Your task to perform on an android device: Open calendar and show me the first week of next month Image 0: 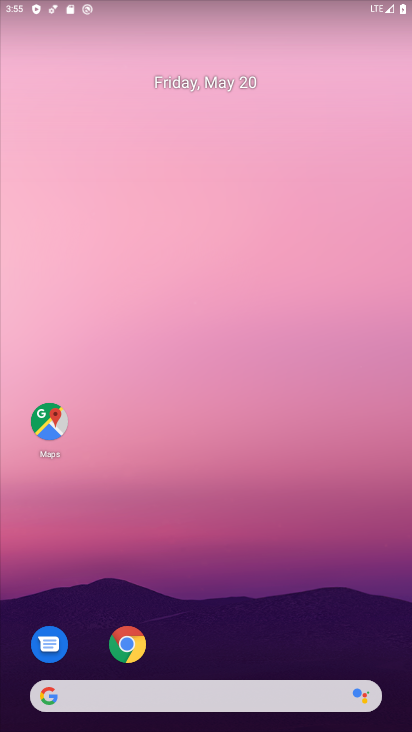
Step 0: drag from (296, 710) to (278, 176)
Your task to perform on an android device: Open calendar and show me the first week of next month Image 1: 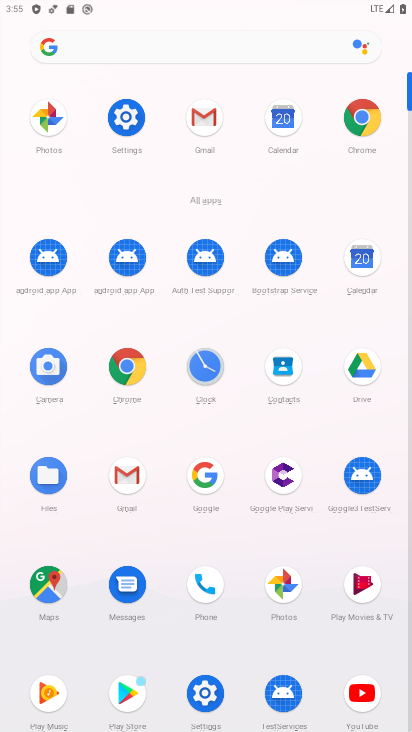
Step 1: click (360, 281)
Your task to perform on an android device: Open calendar and show me the first week of next month Image 2: 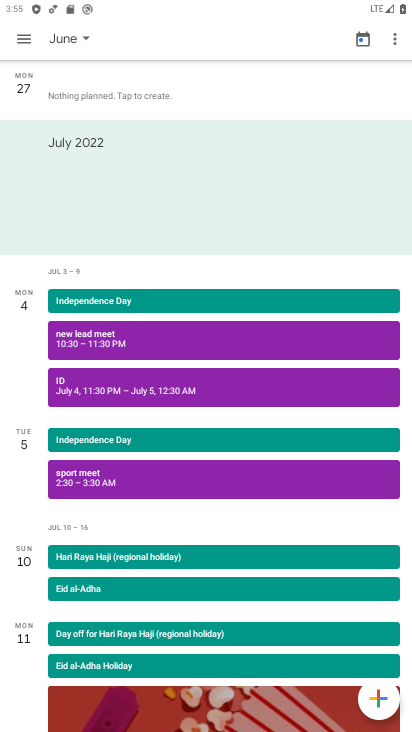
Step 2: click (32, 43)
Your task to perform on an android device: Open calendar and show me the first week of next month Image 3: 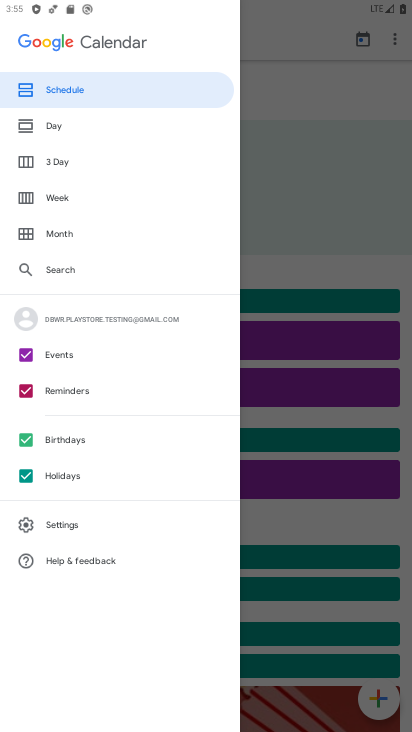
Step 3: click (57, 229)
Your task to perform on an android device: Open calendar and show me the first week of next month Image 4: 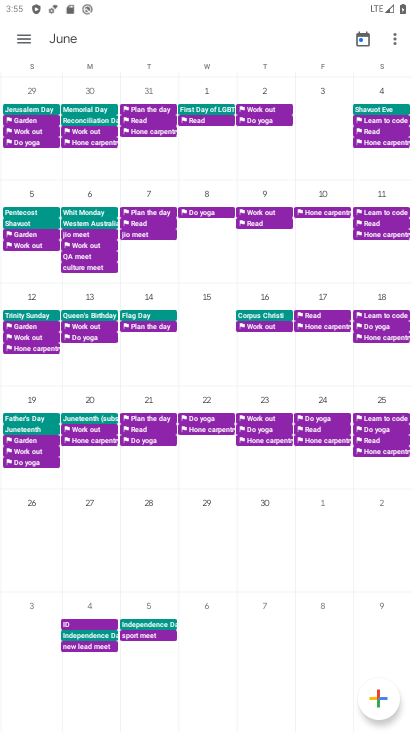
Step 4: click (208, 111)
Your task to perform on an android device: Open calendar and show me the first week of next month Image 5: 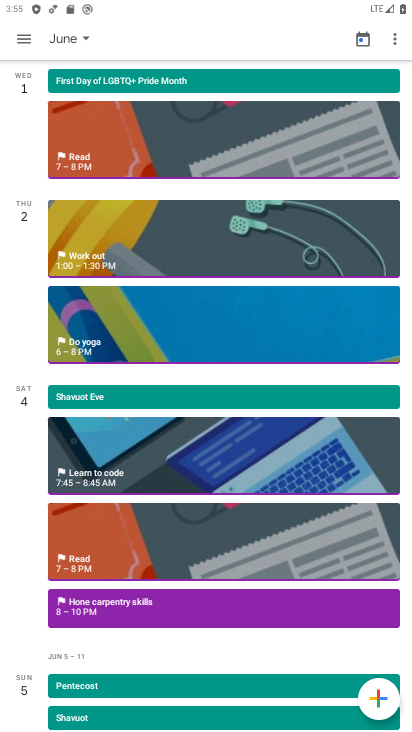
Step 5: task complete